Your task to perform on an android device: change the upload size in google photos Image 0: 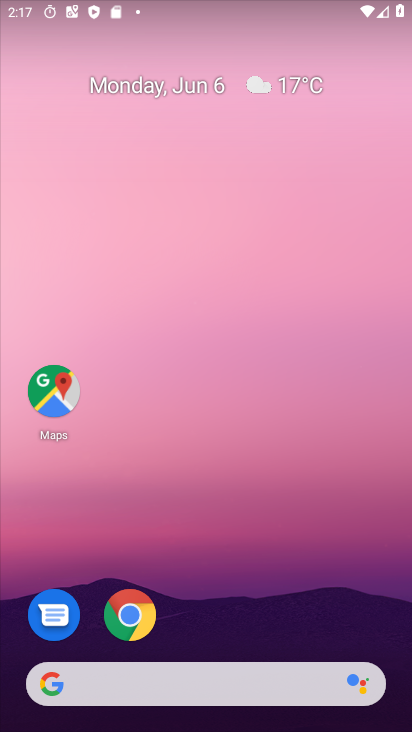
Step 0: drag from (221, 493) to (224, 267)
Your task to perform on an android device: change the upload size in google photos Image 1: 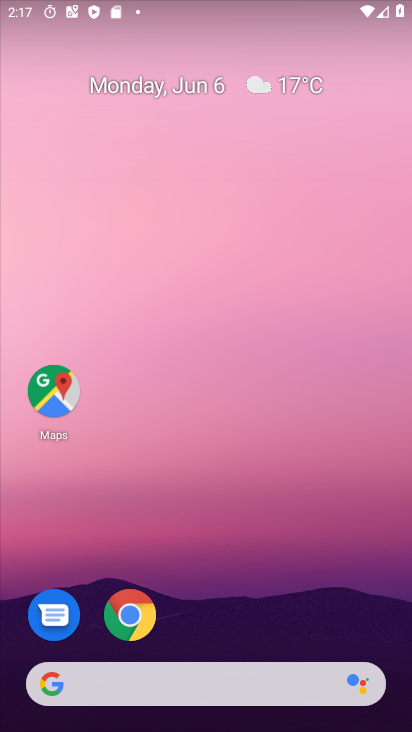
Step 1: drag from (221, 638) to (281, 225)
Your task to perform on an android device: change the upload size in google photos Image 2: 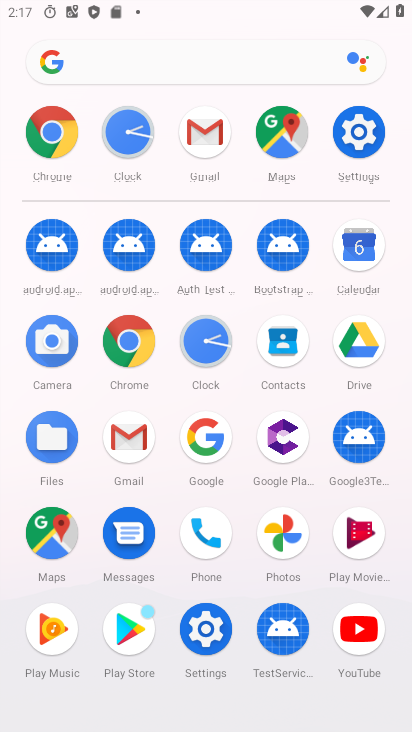
Step 2: click (255, 533)
Your task to perform on an android device: change the upload size in google photos Image 3: 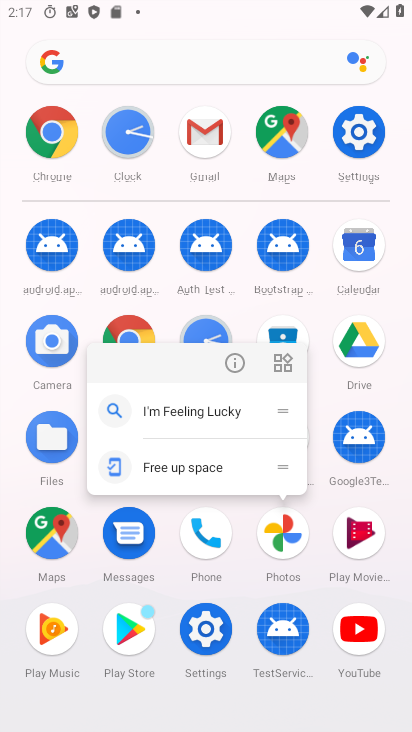
Step 3: click (231, 351)
Your task to perform on an android device: change the upload size in google photos Image 4: 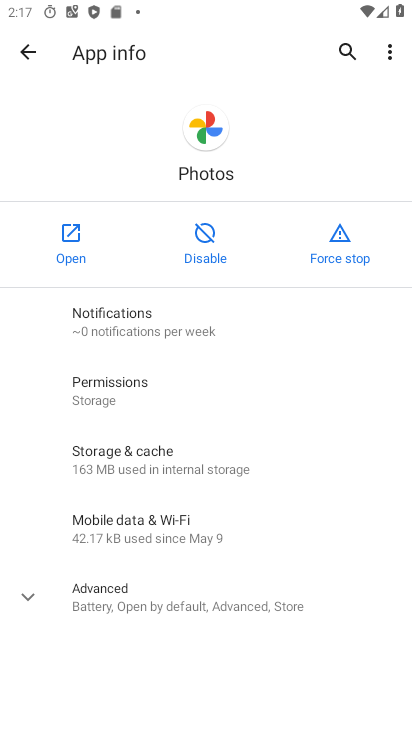
Step 4: click (75, 230)
Your task to perform on an android device: change the upload size in google photos Image 5: 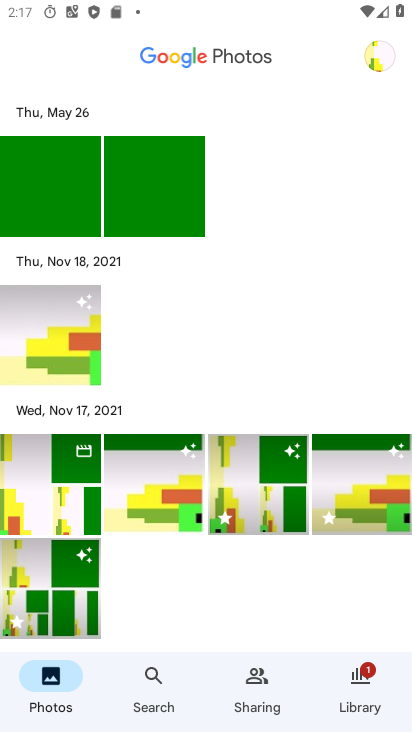
Step 5: click (358, 680)
Your task to perform on an android device: change the upload size in google photos Image 6: 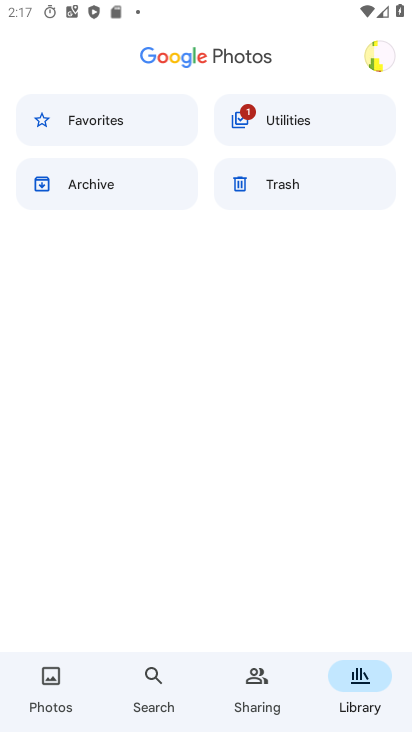
Step 6: click (377, 53)
Your task to perform on an android device: change the upload size in google photos Image 7: 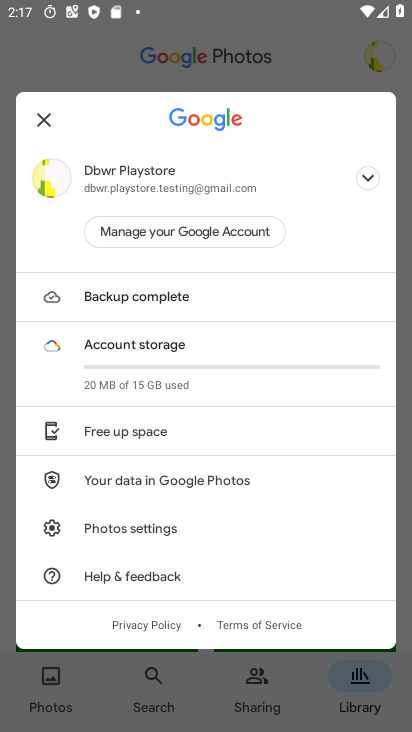
Step 7: click (153, 538)
Your task to perform on an android device: change the upload size in google photos Image 8: 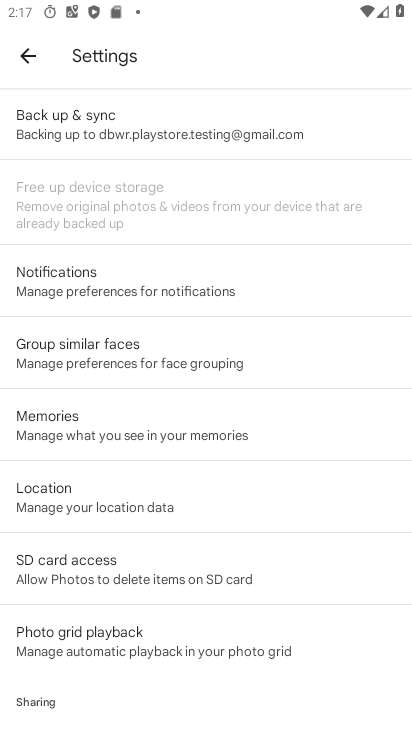
Step 8: click (197, 119)
Your task to perform on an android device: change the upload size in google photos Image 9: 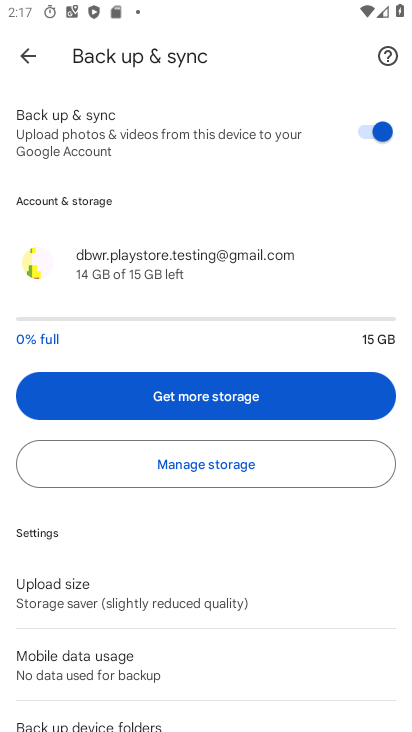
Step 9: click (90, 590)
Your task to perform on an android device: change the upload size in google photos Image 10: 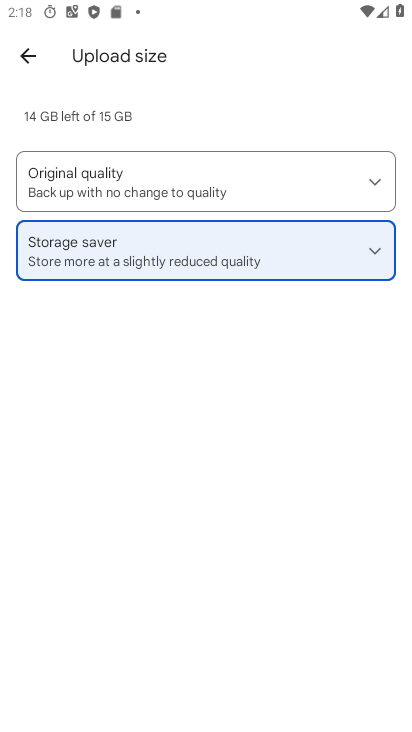
Step 10: click (164, 174)
Your task to perform on an android device: change the upload size in google photos Image 11: 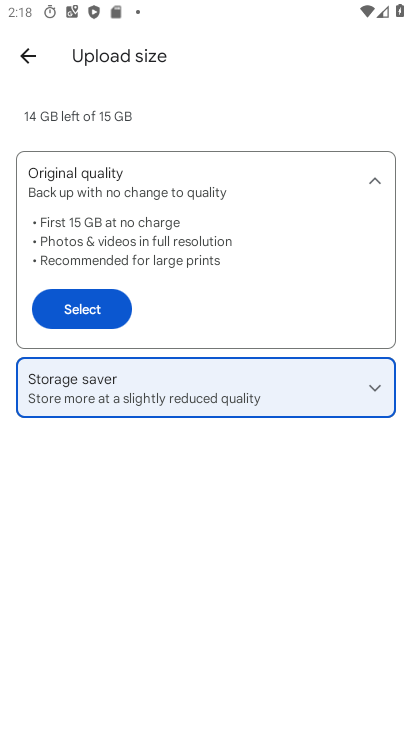
Step 11: click (98, 306)
Your task to perform on an android device: change the upload size in google photos Image 12: 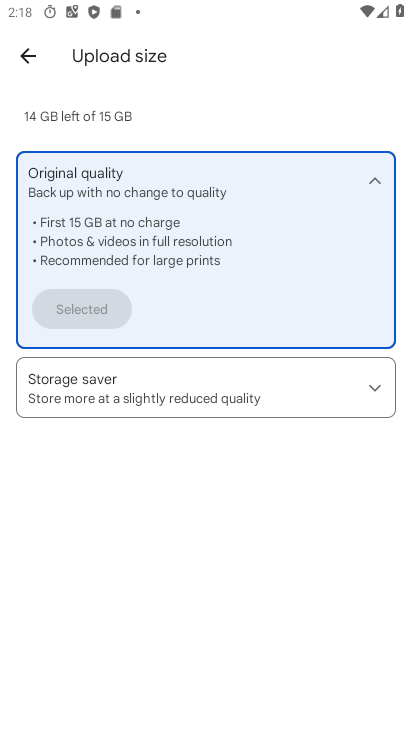
Step 12: task complete